Your task to perform on an android device: read, delete, or share a saved page in the chrome app Image 0: 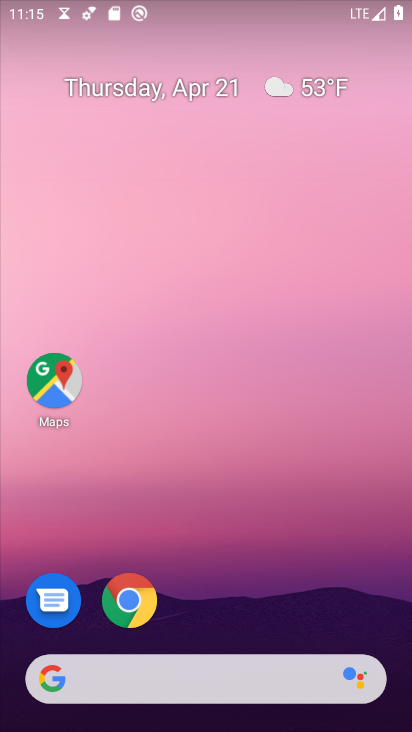
Step 0: click (142, 603)
Your task to perform on an android device: read, delete, or share a saved page in the chrome app Image 1: 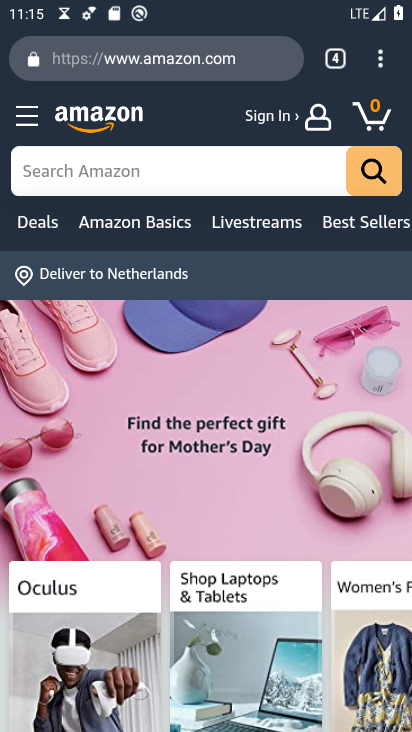
Step 1: click (378, 56)
Your task to perform on an android device: read, delete, or share a saved page in the chrome app Image 2: 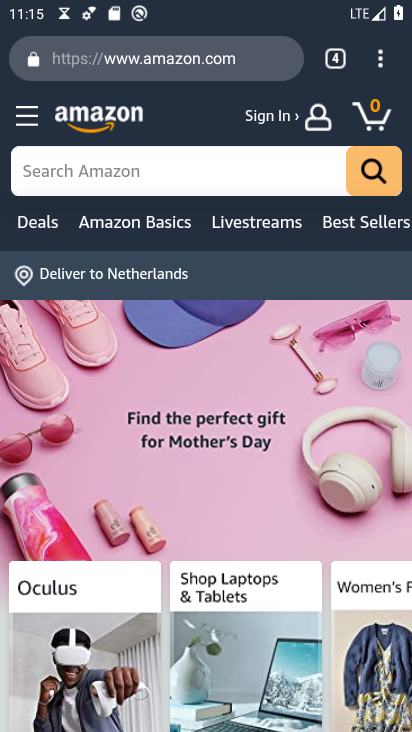
Step 2: click (380, 54)
Your task to perform on an android device: read, delete, or share a saved page in the chrome app Image 3: 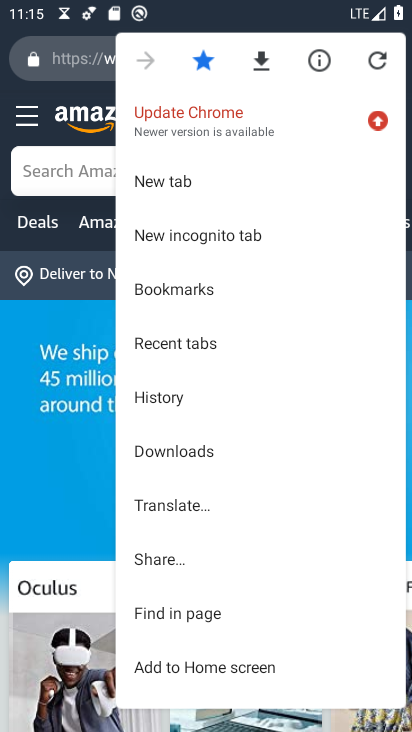
Step 3: click (184, 451)
Your task to perform on an android device: read, delete, or share a saved page in the chrome app Image 4: 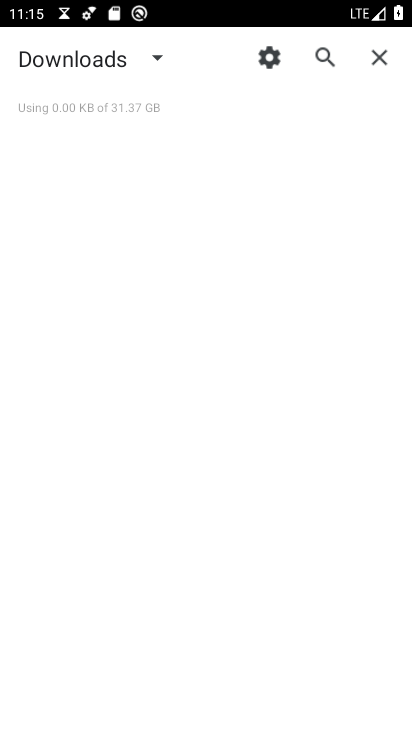
Step 4: click (149, 61)
Your task to perform on an android device: read, delete, or share a saved page in the chrome app Image 5: 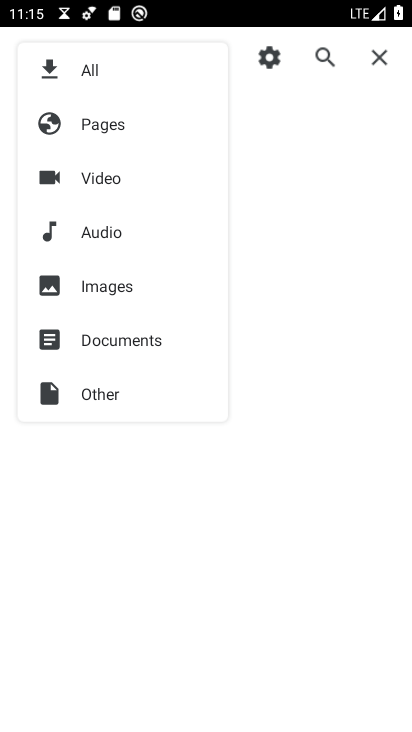
Step 5: click (117, 119)
Your task to perform on an android device: read, delete, or share a saved page in the chrome app Image 6: 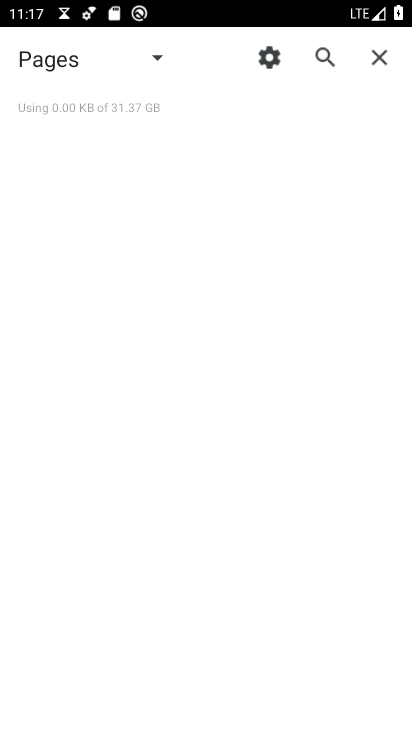
Step 6: task complete